Your task to perform on an android device: When is my next appointment? Image 0: 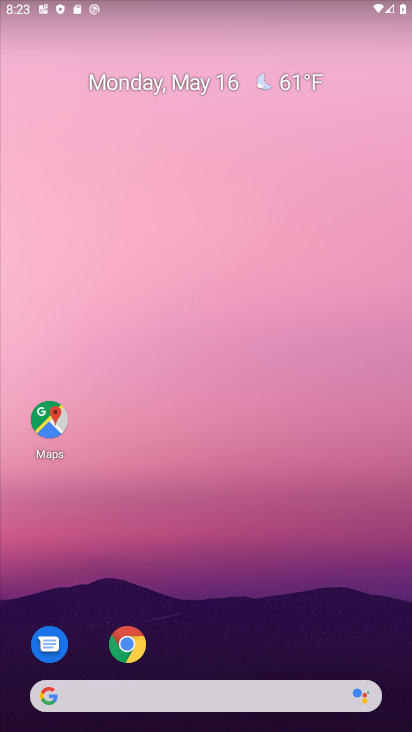
Step 0: drag from (244, 625) to (223, 126)
Your task to perform on an android device: When is my next appointment? Image 1: 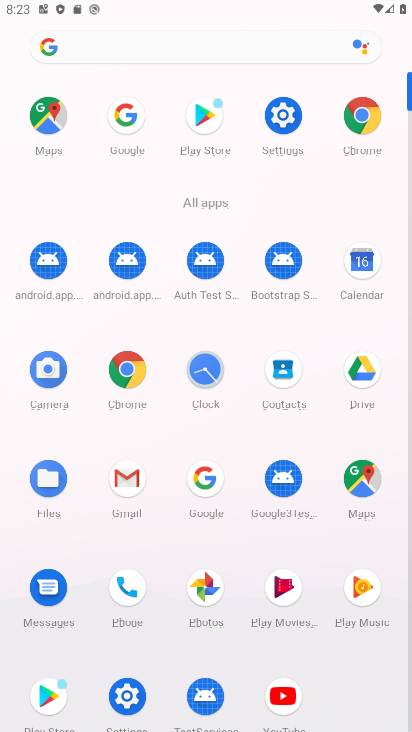
Step 1: click (365, 259)
Your task to perform on an android device: When is my next appointment? Image 2: 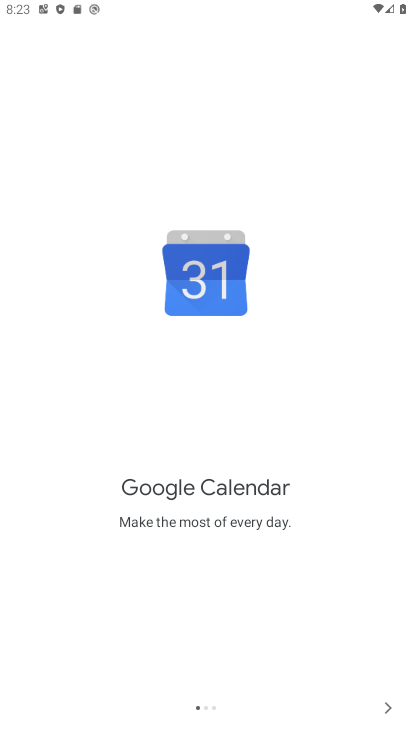
Step 2: click (387, 708)
Your task to perform on an android device: When is my next appointment? Image 3: 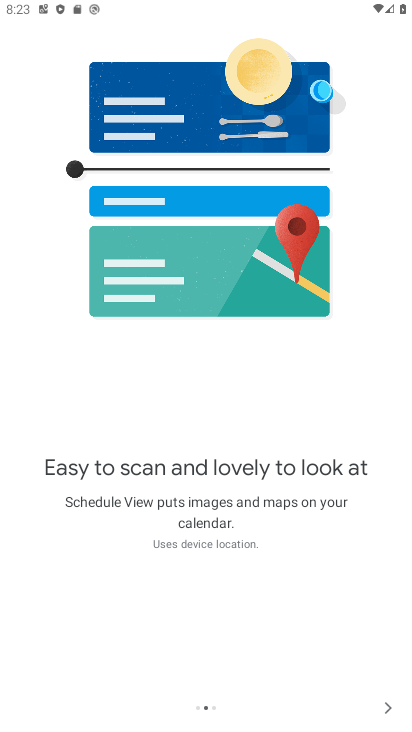
Step 3: click (387, 708)
Your task to perform on an android device: When is my next appointment? Image 4: 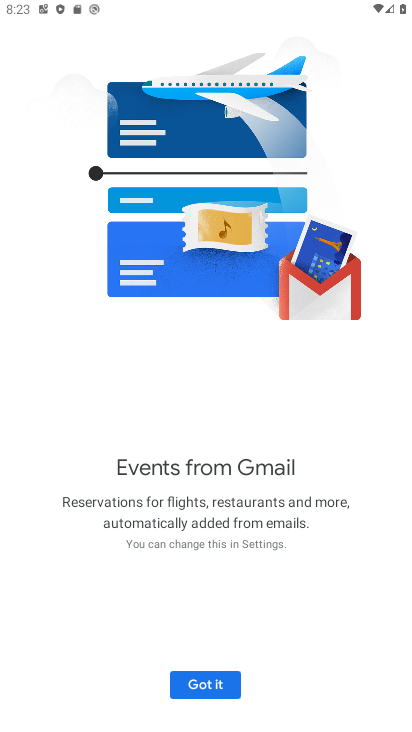
Step 4: click (209, 690)
Your task to perform on an android device: When is my next appointment? Image 5: 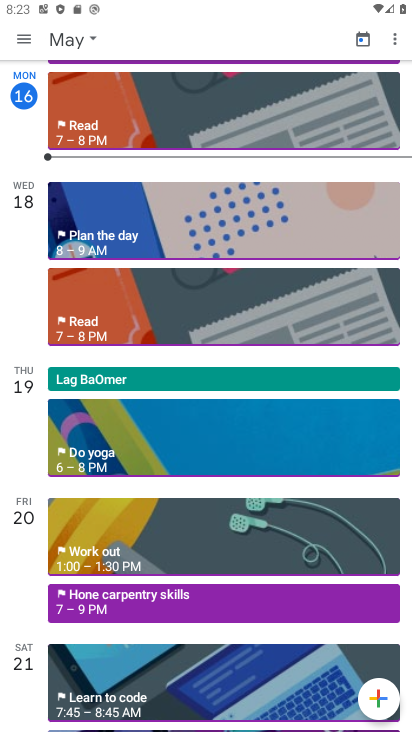
Step 5: click (84, 38)
Your task to perform on an android device: When is my next appointment? Image 6: 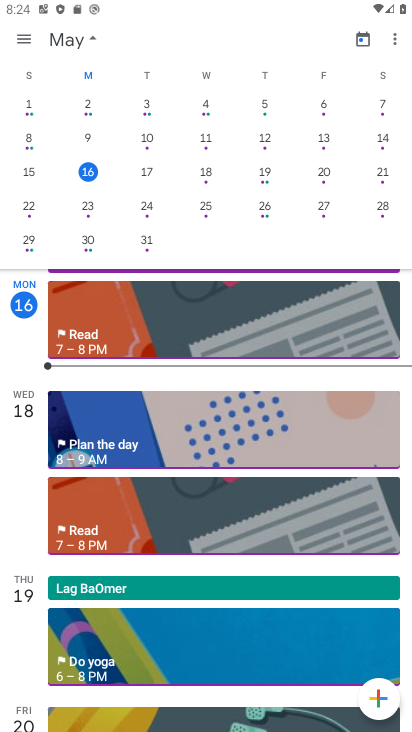
Step 6: click (206, 169)
Your task to perform on an android device: When is my next appointment? Image 7: 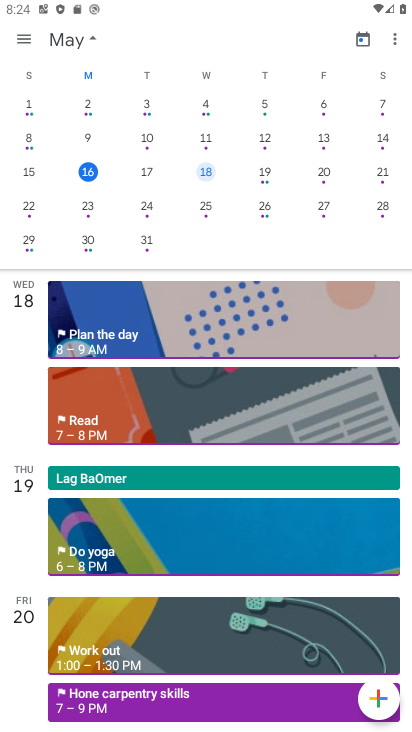
Step 7: task complete